Your task to perform on an android device: Go to Yahoo.com Image 0: 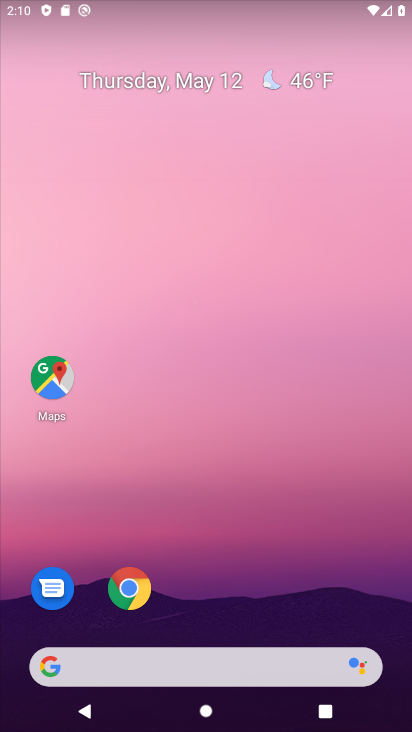
Step 0: click (134, 578)
Your task to perform on an android device: Go to Yahoo.com Image 1: 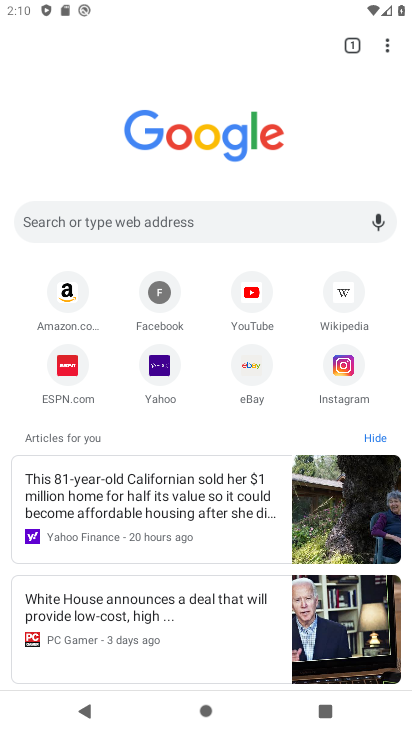
Step 1: click (145, 371)
Your task to perform on an android device: Go to Yahoo.com Image 2: 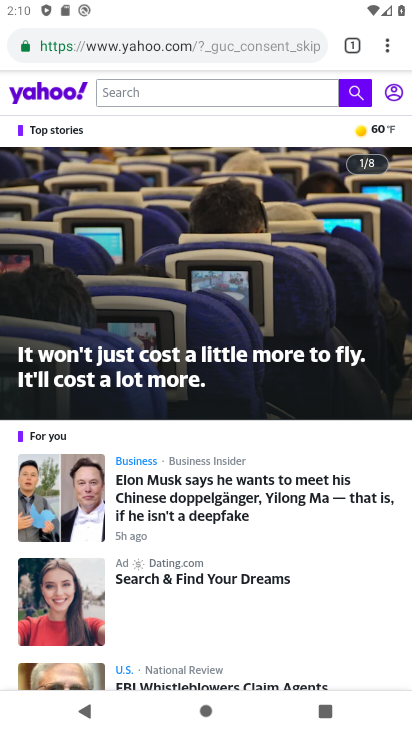
Step 2: task complete